Your task to perform on an android device: toggle airplane mode Image 0: 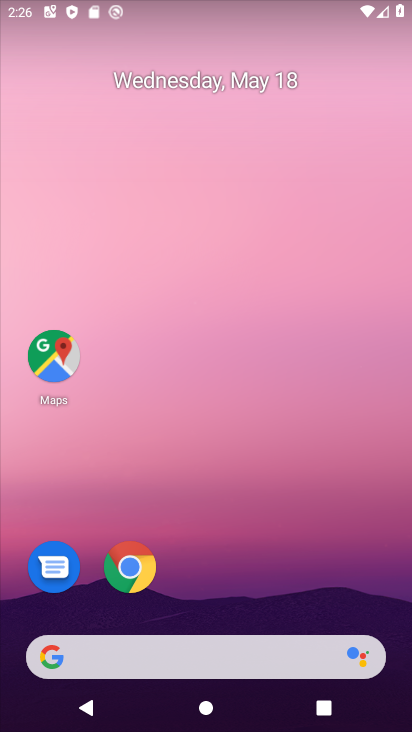
Step 0: click (234, 179)
Your task to perform on an android device: toggle airplane mode Image 1: 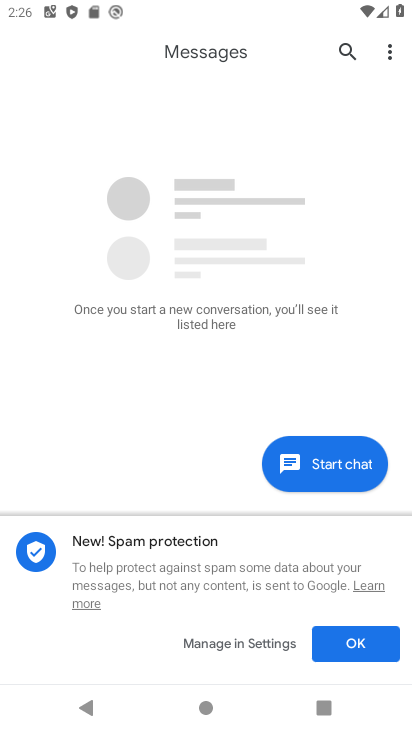
Step 1: press home button
Your task to perform on an android device: toggle airplane mode Image 2: 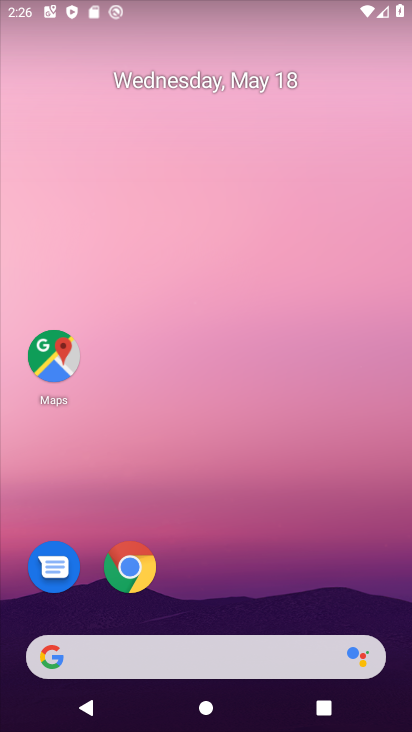
Step 2: drag from (236, 532) to (246, 128)
Your task to perform on an android device: toggle airplane mode Image 3: 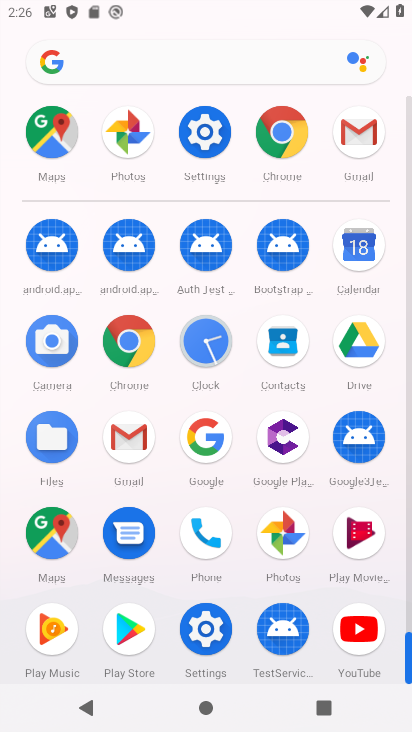
Step 3: click (191, 128)
Your task to perform on an android device: toggle airplane mode Image 4: 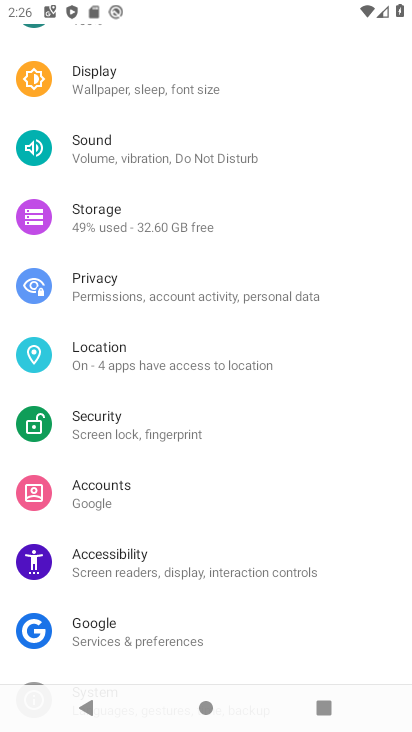
Step 4: drag from (183, 92) to (114, 596)
Your task to perform on an android device: toggle airplane mode Image 5: 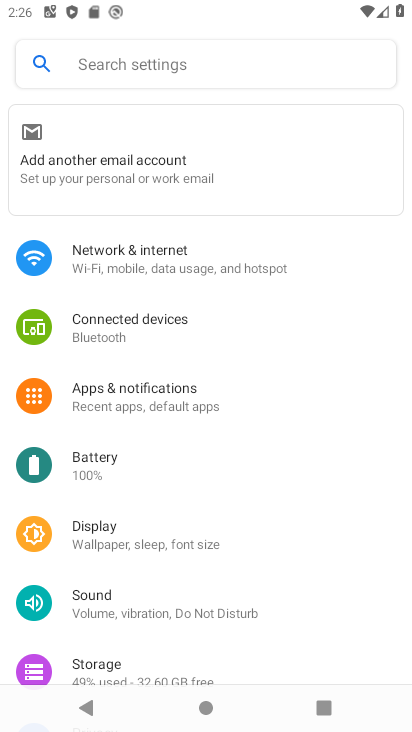
Step 5: click (118, 259)
Your task to perform on an android device: toggle airplane mode Image 6: 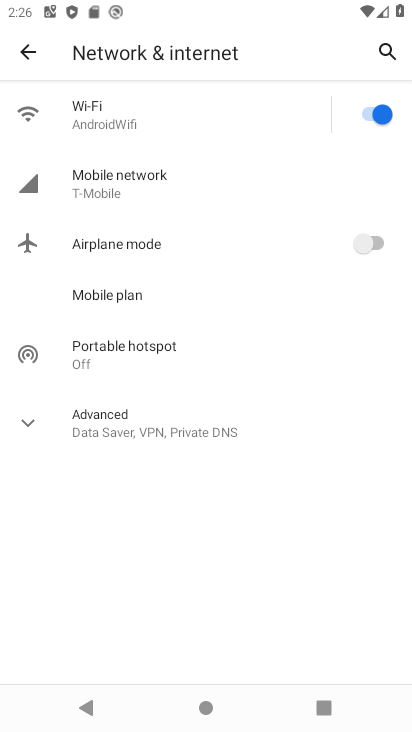
Step 6: click (368, 232)
Your task to perform on an android device: toggle airplane mode Image 7: 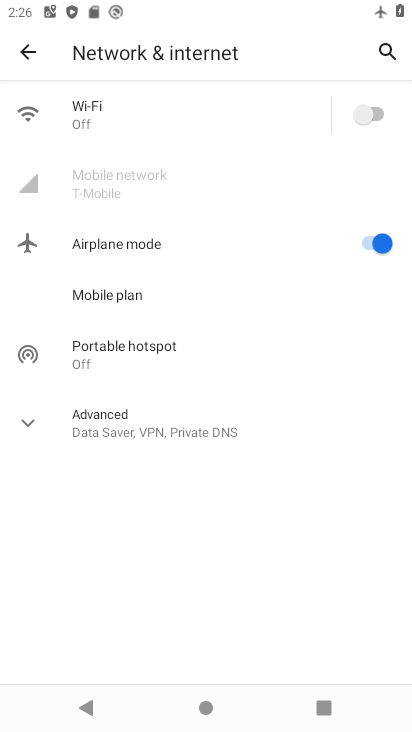
Step 7: task complete